Your task to perform on an android device: add a contact Image 0: 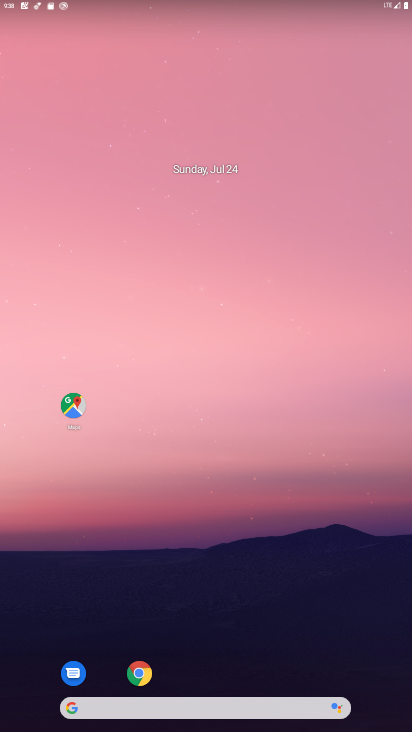
Step 0: drag from (216, 646) to (245, 115)
Your task to perform on an android device: add a contact Image 1: 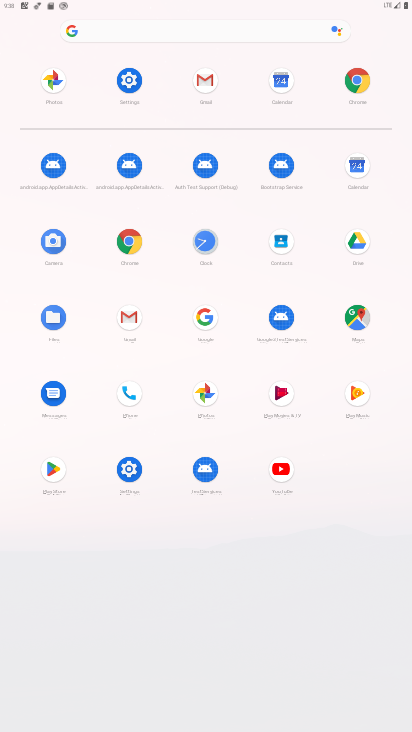
Step 1: click (278, 245)
Your task to perform on an android device: add a contact Image 2: 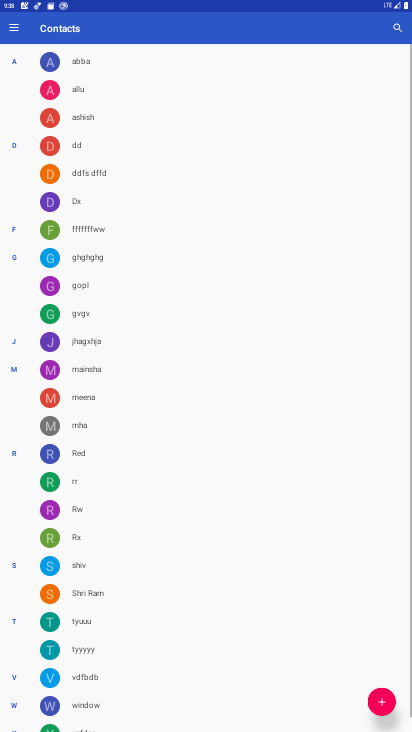
Step 2: click (382, 707)
Your task to perform on an android device: add a contact Image 3: 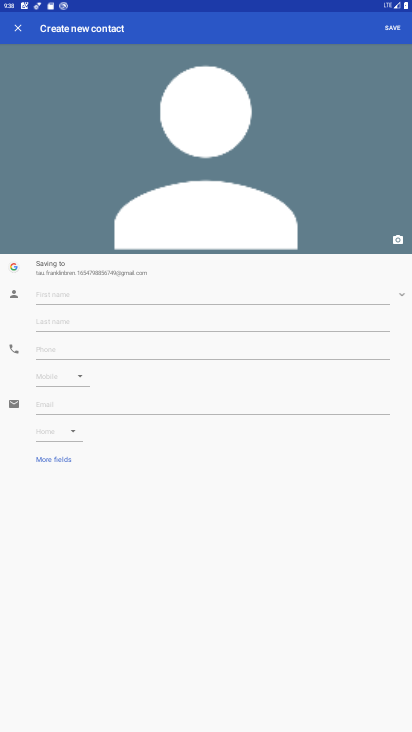
Step 3: click (97, 290)
Your task to perform on an android device: add a contact Image 4: 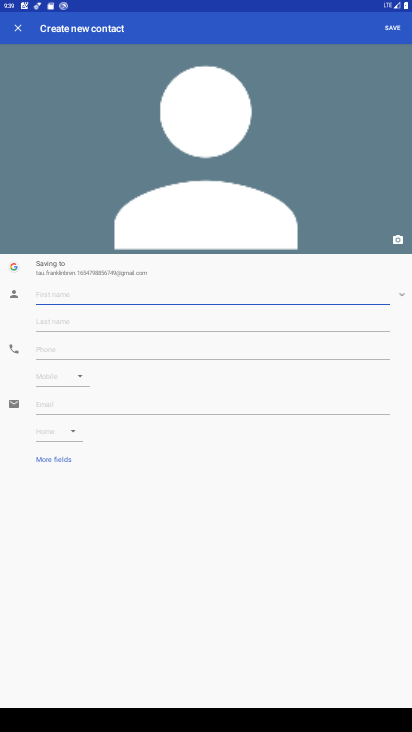
Step 4: type "cluture"
Your task to perform on an android device: add a contact Image 5: 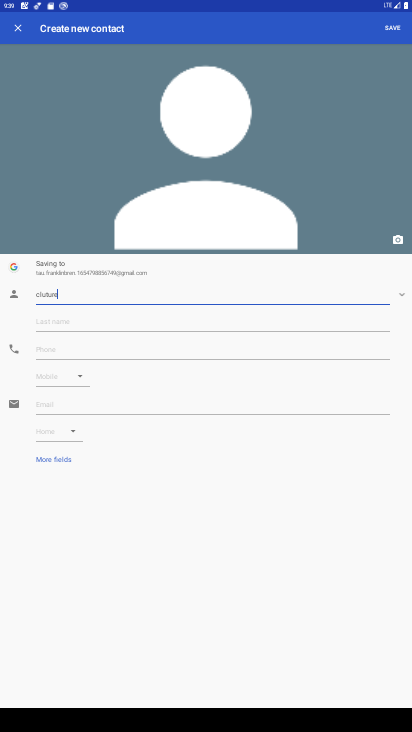
Step 5: click (388, 24)
Your task to perform on an android device: add a contact Image 6: 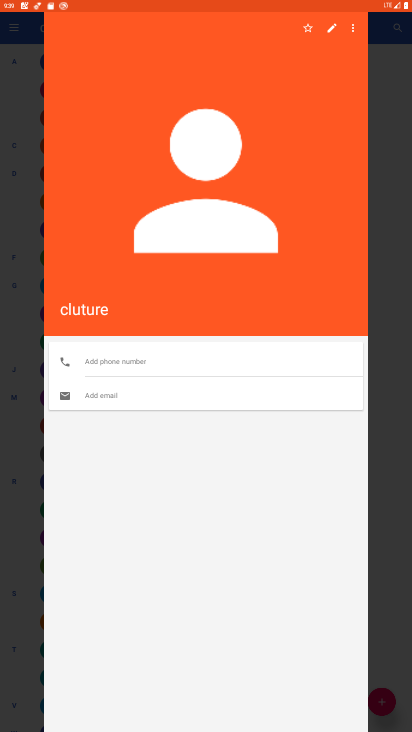
Step 6: task complete